Your task to perform on an android device: change your default location settings in chrome Image 0: 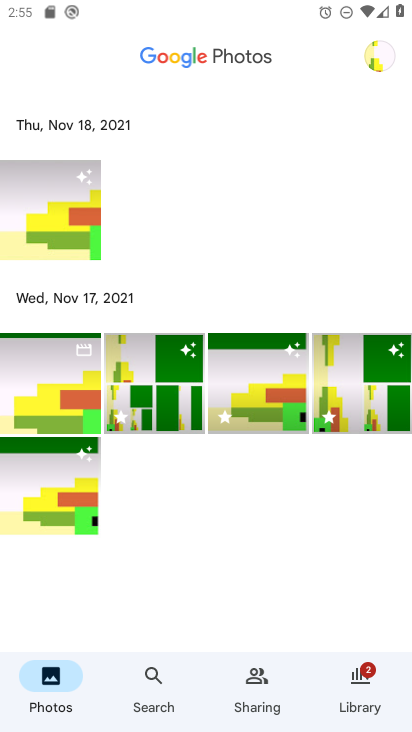
Step 0: press home button
Your task to perform on an android device: change your default location settings in chrome Image 1: 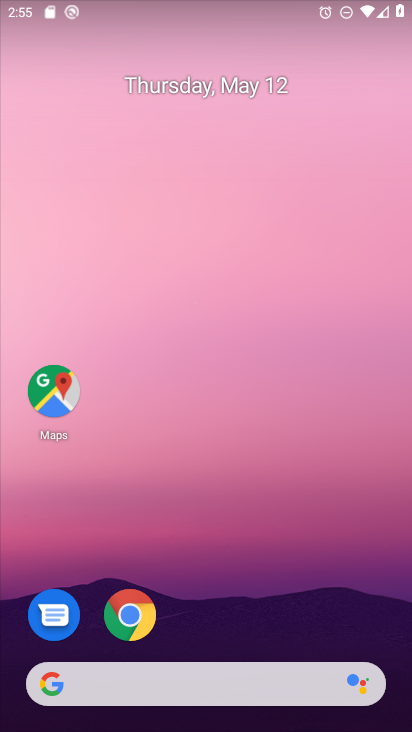
Step 1: drag from (279, 648) to (324, 0)
Your task to perform on an android device: change your default location settings in chrome Image 2: 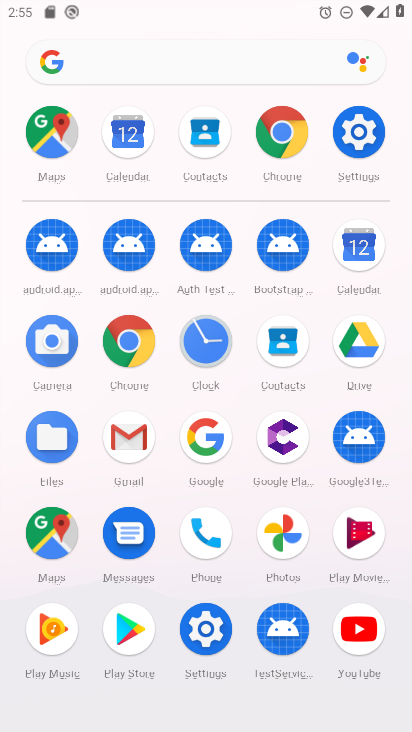
Step 2: click (139, 349)
Your task to perform on an android device: change your default location settings in chrome Image 3: 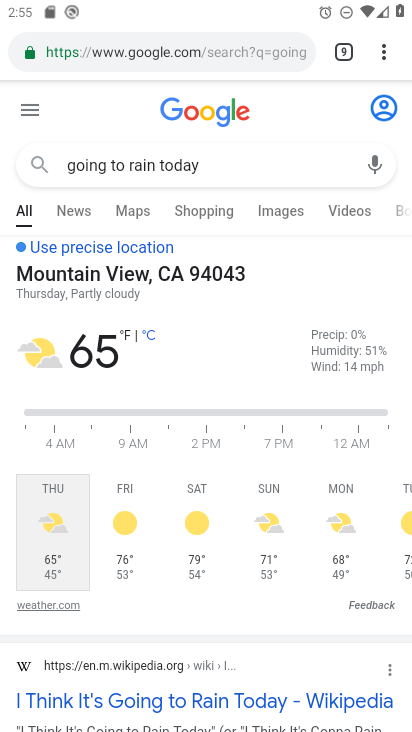
Step 3: drag from (385, 50) to (203, 570)
Your task to perform on an android device: change your default location settings in chrome Image 4: 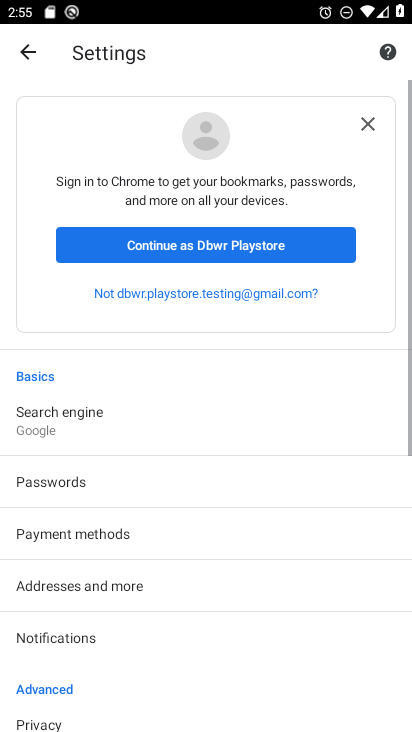
Step 4: drag from (183, 631) to (244, 133)
Your task to perform on an android device: change your default location settings in chrome Image 5: 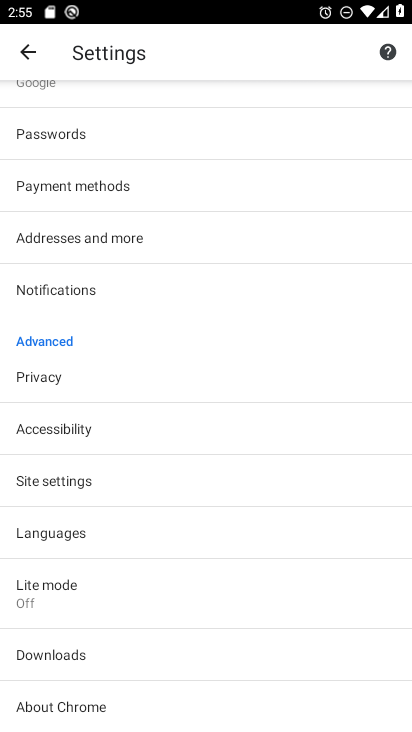
Step 5: click (217, 496)
Your task to perform on an android device: change your default location settings in chrome Image 6: 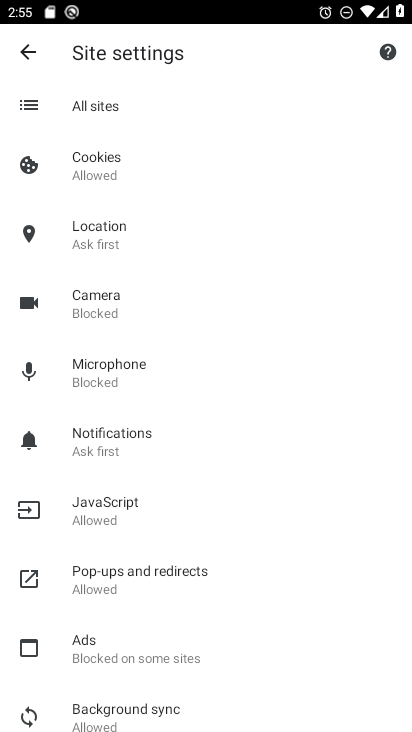
Step 6: click (95, 231)
Your task to perform on an android device: change your default location settings in chrome Image 7: 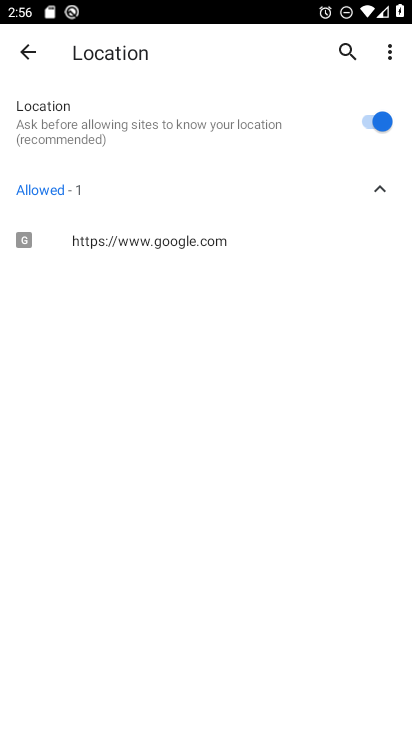
Step 7: task complete